Your task to perform on an android device: Open calendar and show me the third week of next month Image 0: 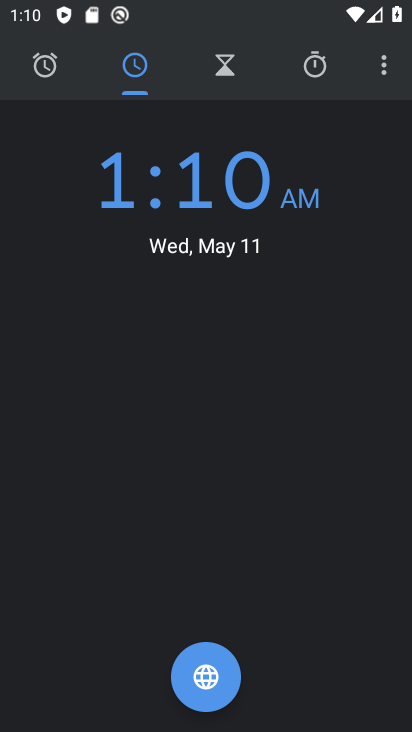
Step 0: press home button
Your task to perform on an android device: Open calendar and show me the third week of next month Image 1: 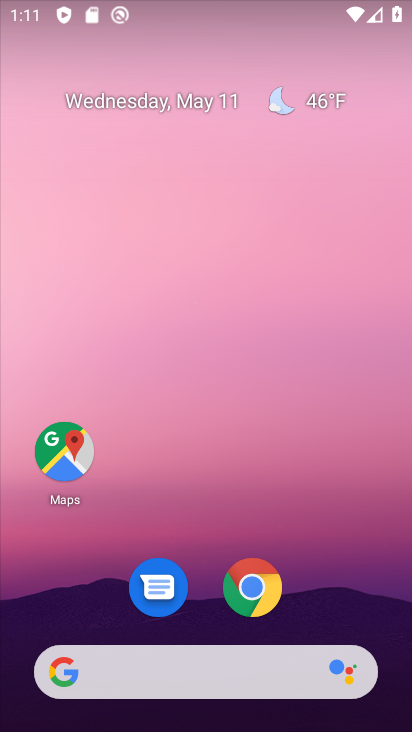
Step 1: drag from (378, 609) to (211, 34)
Your task to perform on an android device: Open calendar and show me the third week of next month Image 2: 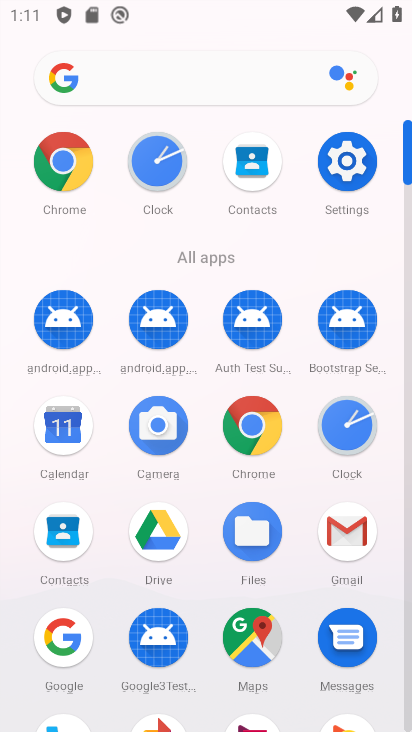
Step 2: click (61, 396)
Your task to perform on an android device: Open calendar and show me the third week of next month Image 3: 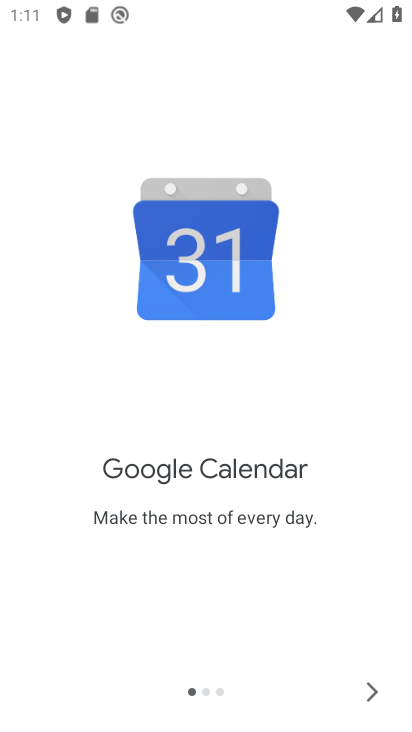
Step 3: click (362, 693)
Your task to perform on an android device: Open calendar and show me the third week of next month Image 4: 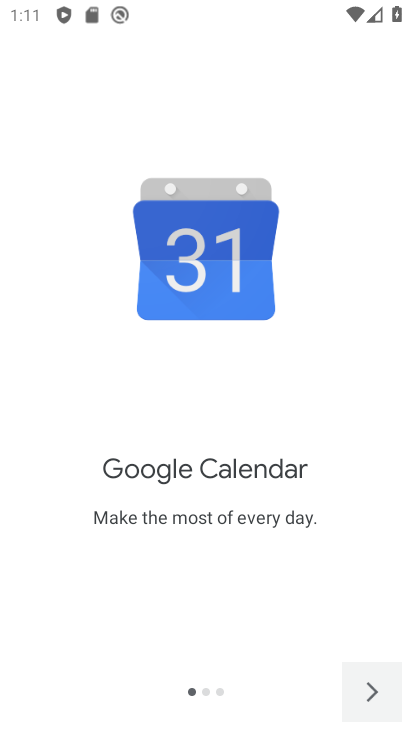
Step 4: click (362, 693)
Your task to perform on an android device: Open calendar and show me the third week of next month Image 5: 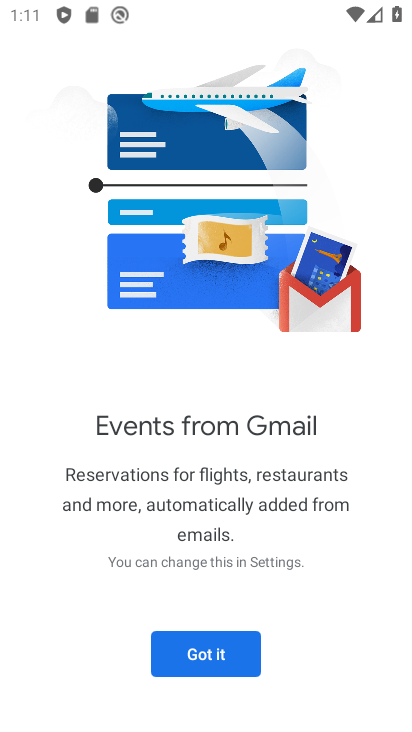
Step 5: click (375, 695)
Your task to perform on an android device: Open calendar and show me the third week of next month Image 6: 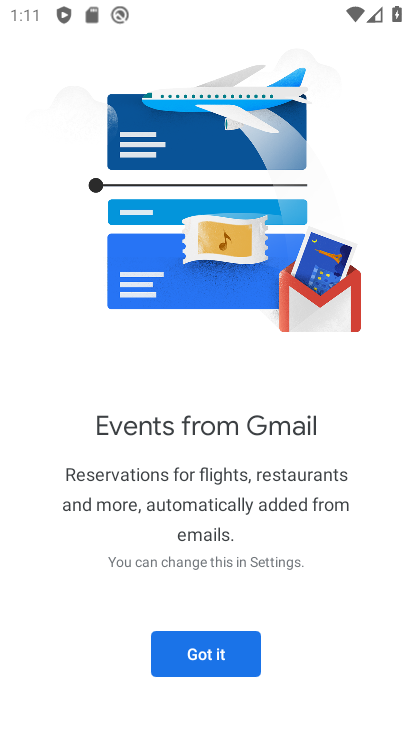
Step 6: click (206, 651)
Your task to perform on an android device: Open calendar and show me the third week of next month Image 7: 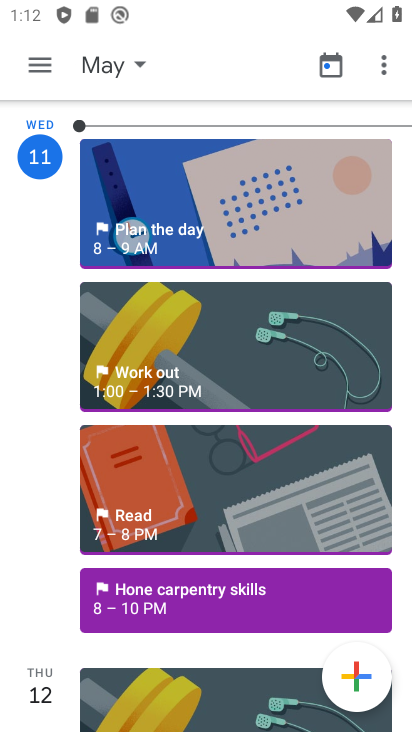
Step 7: click (117, 61)
Your task to perform on an android device: Open calendar and show me the third week of next month Image 8: 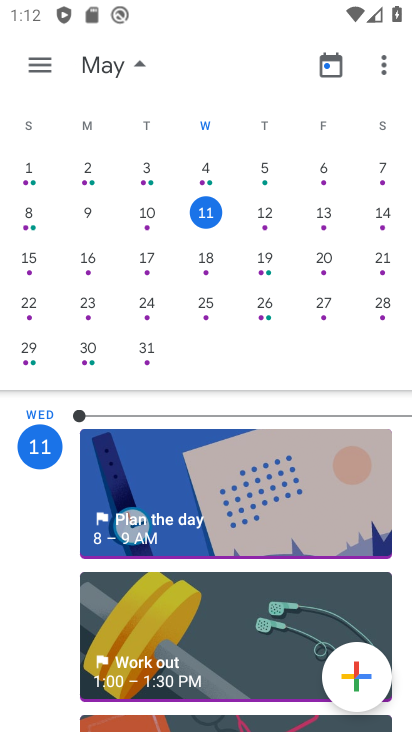
Step 8: drag from (355, 187) to (12, 399)
Your task to perform on an android device: Open calendar and show me the third week of next month Image 9: 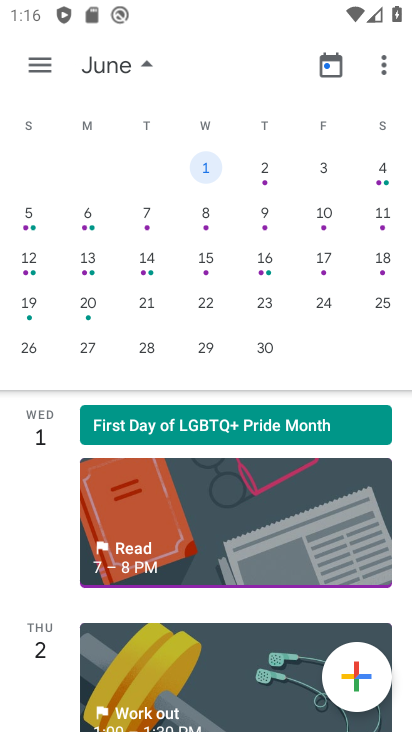
Step 9: click (218, 256)
Your task to perform on an android device: Open calendar and show me the third week of next month Image 10: 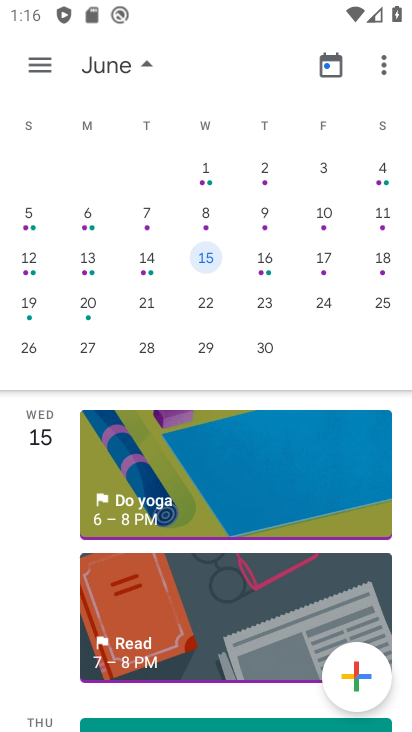
Step 10: task complete